Your task to perform on an android device: Open Youtube and go to "Your channel" Image 0: 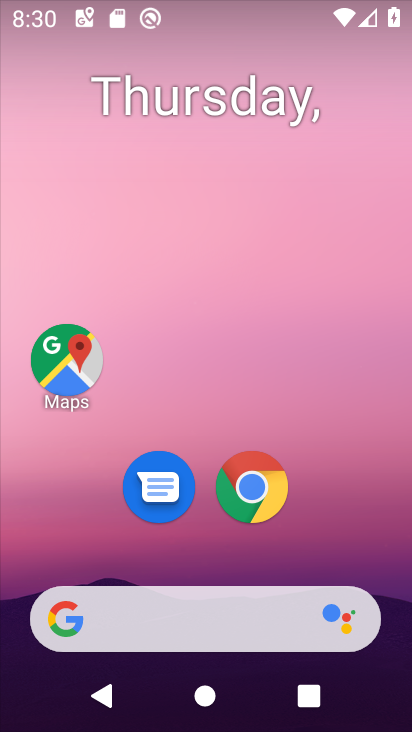
Step 0: drag from (171, 560) to (235, 3)
Your task to perform on an android device: Open Youtube and go to "Your channel" Image 1: 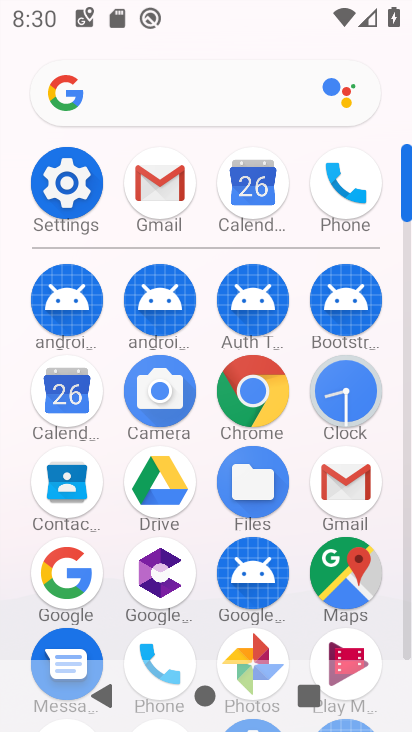
Step 1: drag from (310, 528) to (297, 18)
Your task to perform on an android device: Open Youtube and go to "Your channel" Image 2: 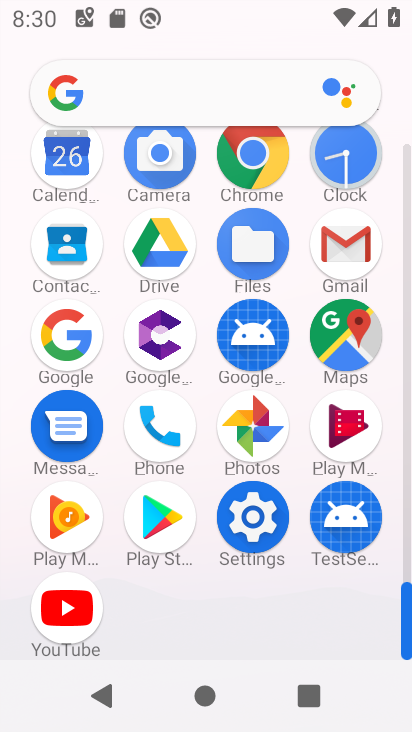
Step 2: click (69, 615)
Your task to perform on an android device: Open Youtube and go to "Your channel" Image 3: 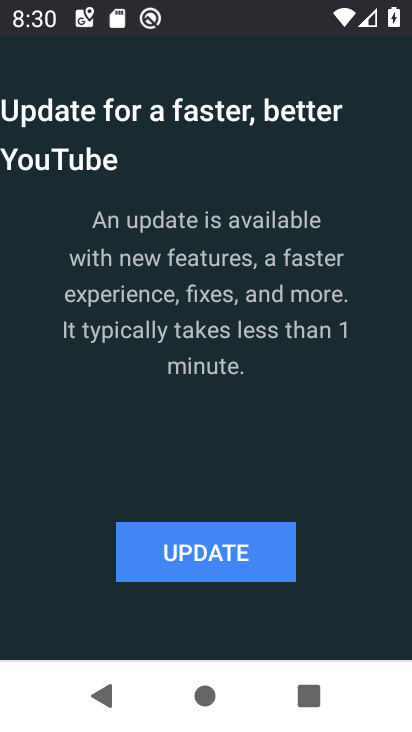
Step 3: click (237, 542)
Your task to perform on an android device: Open Youtube and go to "Your channel" Image 4: 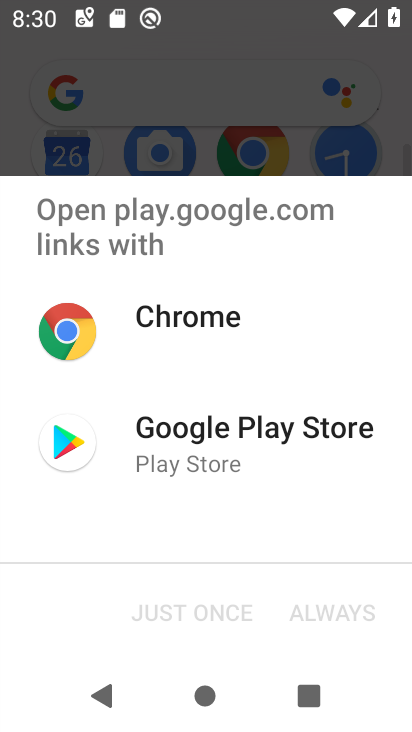
Step 4: click (207, 410)
Your task to perform on an android device: Open Youtube and go to "Your channel" Image 5: 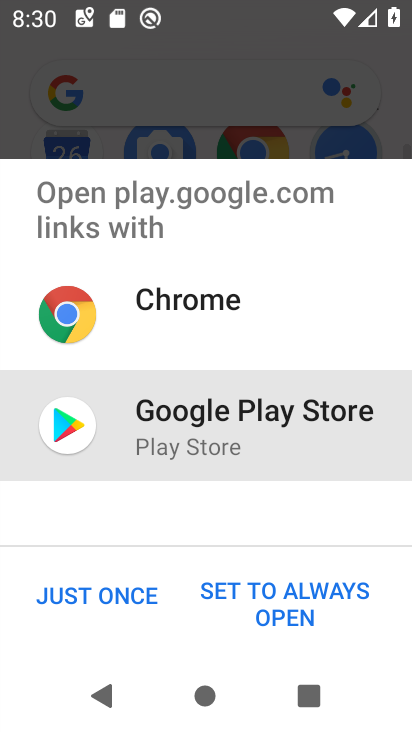
Step 5: click (110, 613)
Your task to perform on an android device: Open Youtube and go to "Your channel" Image 6: 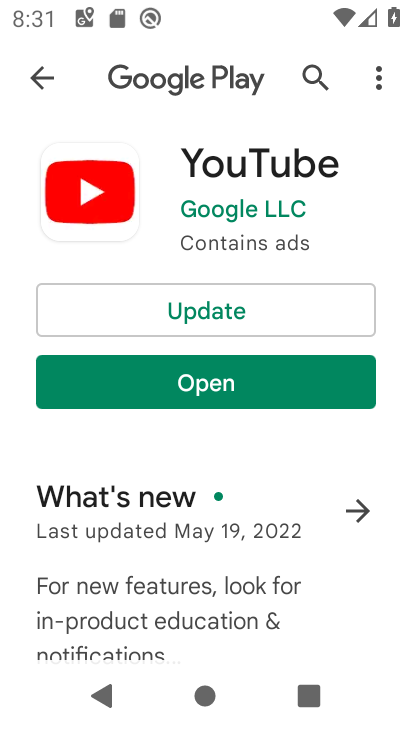
Step 6: click (203, 298)
Your task to perform on an android device: Open Youtube and go to "Your channel" Image 7: 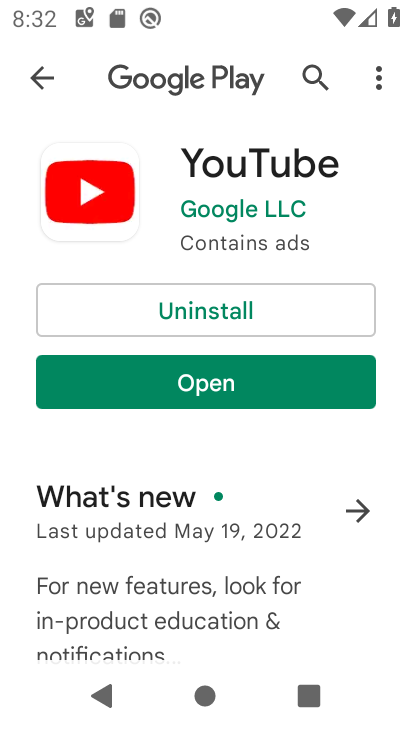
Step 7: click (185, 388)
Your task to perform on an android device: Open Youtube and go to "Your channel" Image 8: 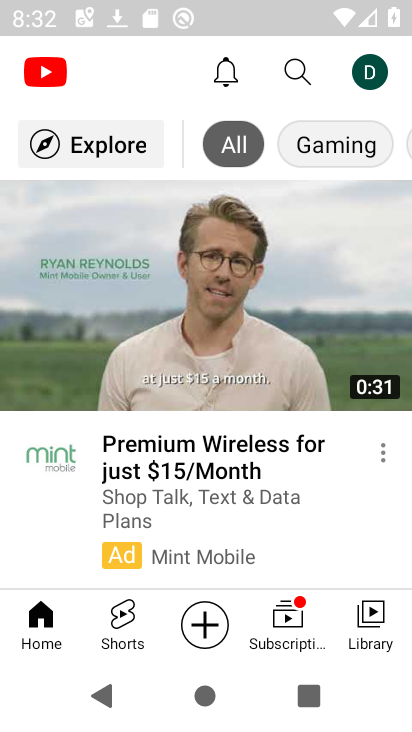
Step 8: click (359, 67)
Your task to perform on an android device: Open Youtube and go to "Your channel" Image 9: 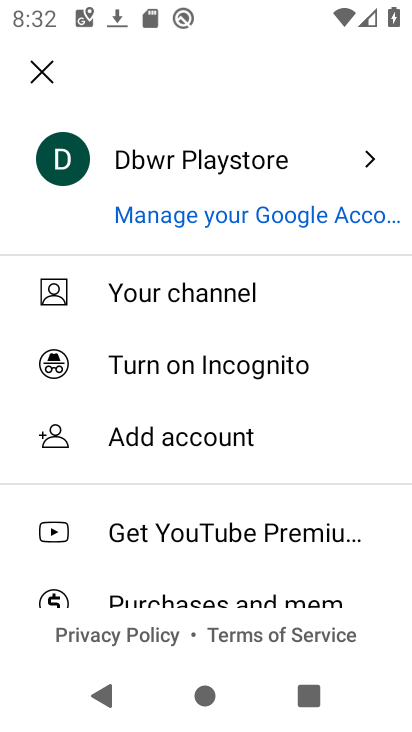
Step 9: click (163, 312)
Your task to perform on an android device: Open Youtube and go to "Your channel" Image 10: 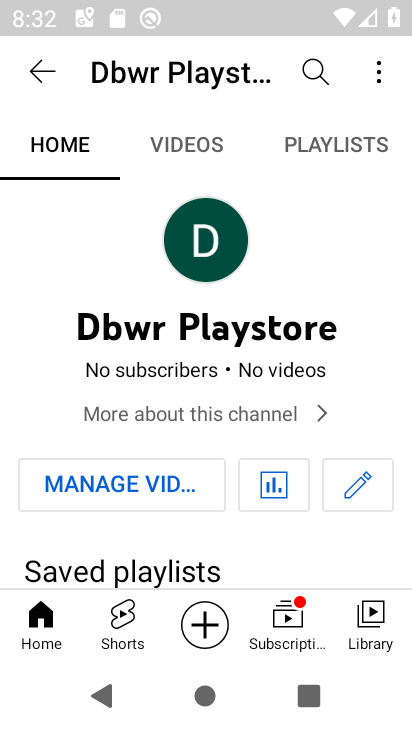
Step 10: task complete